Your task to perform on an android device: turn on location history Image 0: 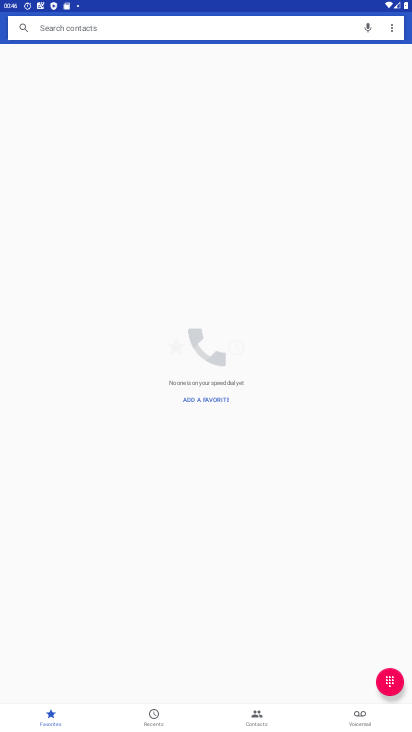
Step 0: press home button
Your task to perform on an android device: turn on location history Image 1: 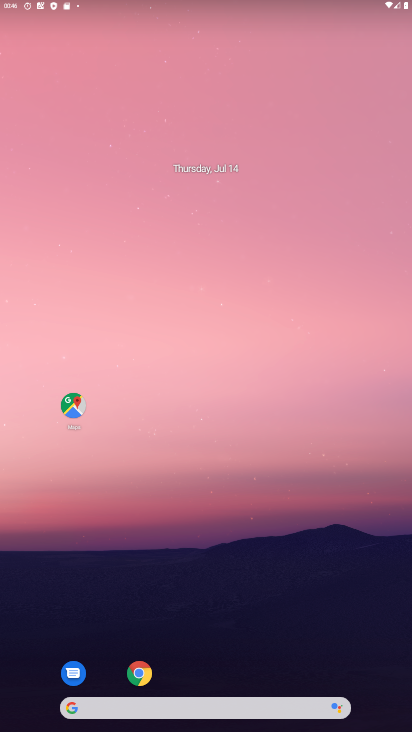
Step 1: drag from (198, 659) to (224, 189)
Your task to perform on an android device: turn on location history Image 2: 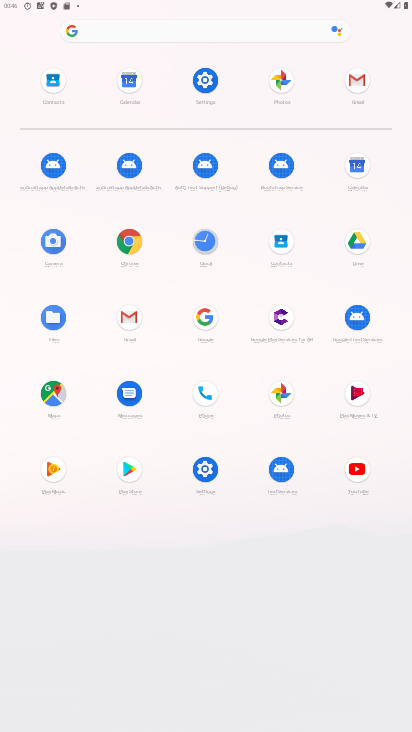
Step 2: click (201, 97)
Your task to perform on an android device: turn on location history Image 3: 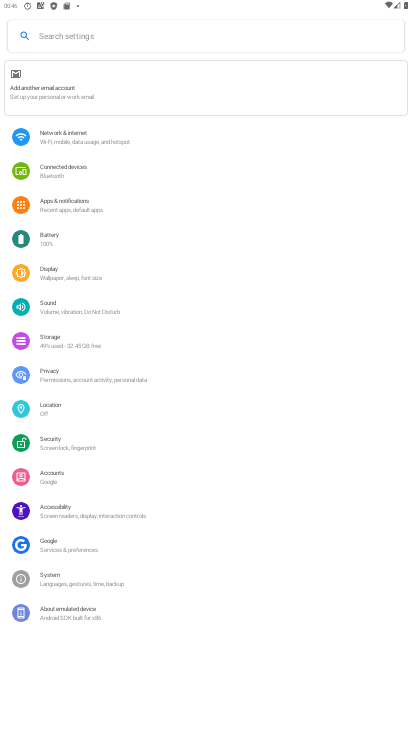
Step 3: click (64, 412)
Your task to perform on an android device: turn on location history Image 4: 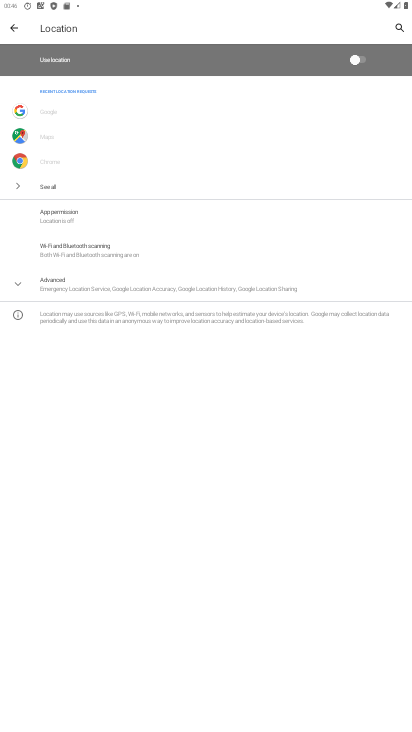
Step 4: click (75, 292)
Your task to perform on an android device: turn on location history Image 5: 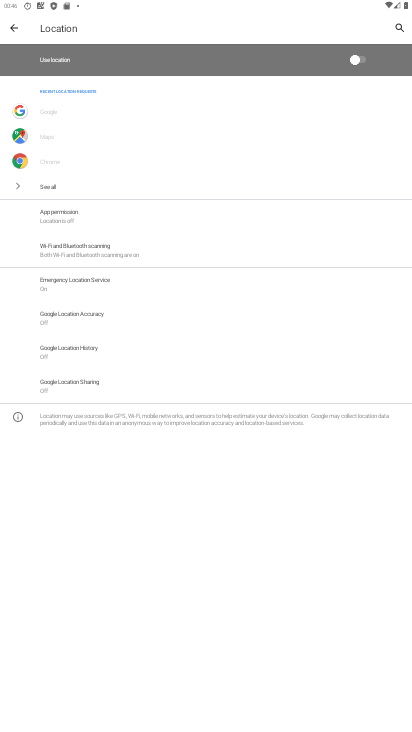
Step 5: click (45, 349)
Your task to perform on an android device: turn on location history Image 6: 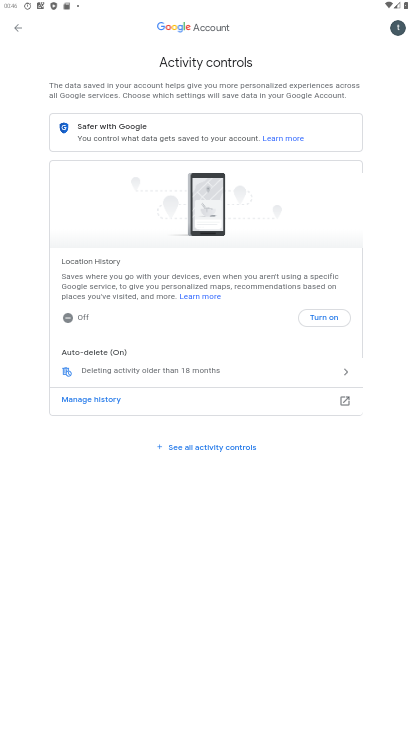
Step 6: click (334, 321)
Your task to perform on an android device: turn on location history Image 7: 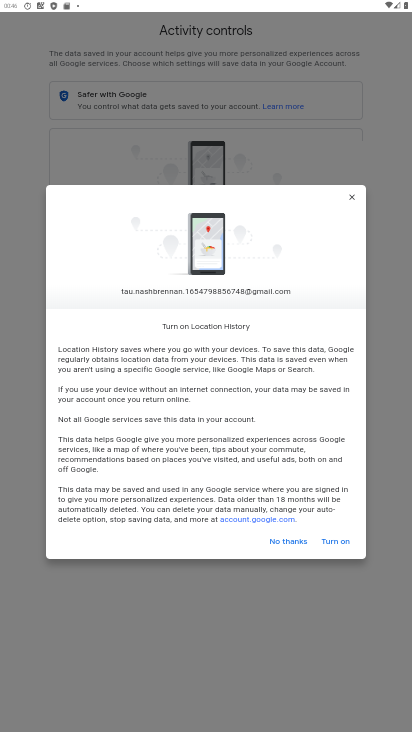
Step 7: click (335, 535)
Your task to perform on an android device: turn on location history Image 8: 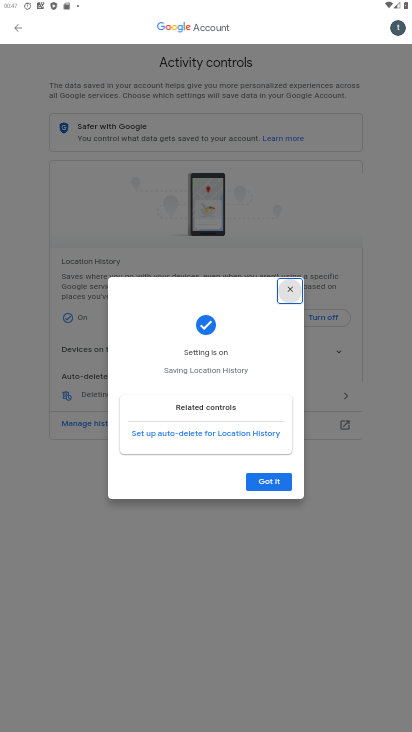
Step 8: task complete